Your task to perform on an android device: turn on bluetooth scan Image 0: 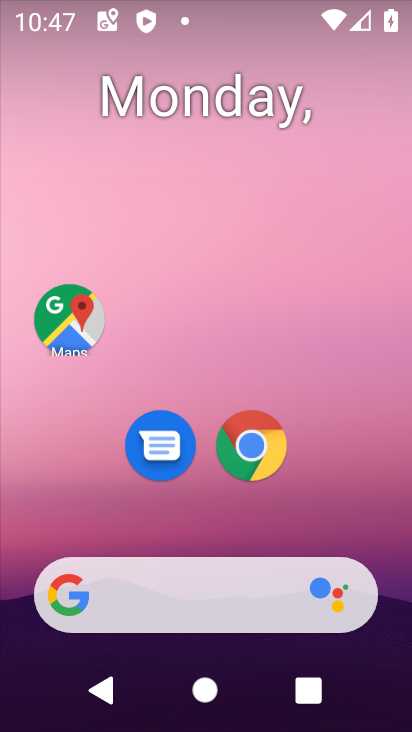
Step 0: drag from (259, 539) to (384, 205)
Your task to perform on an android device: turn on bluetooth scan Image 1: 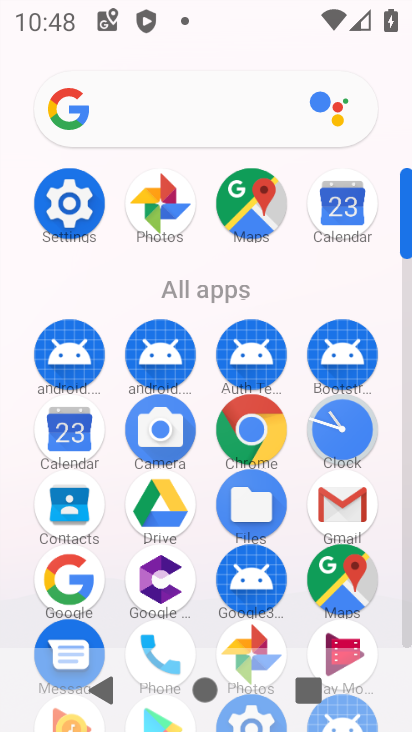
Step 1: click (80, 205)
Your task to perform on an android device: turn on bluetooth scan Image 2: 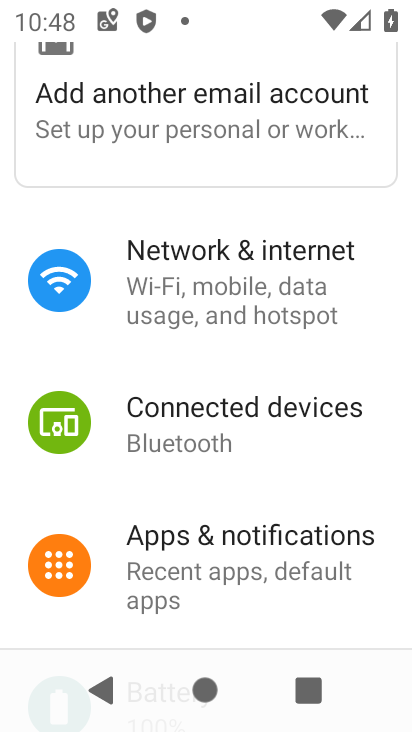
Step 2: drag from (223, 584) to (295, 249)
Your task to perform on an android device: turn on bluetooth scan Image 3: 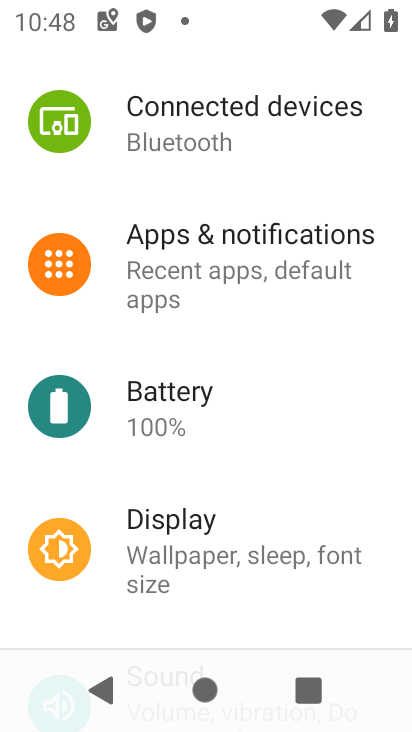
Step 3: drag from (218, 475) to (278, 289)
Your task to perform on an android device: turn on bluetooth scan Image 4: 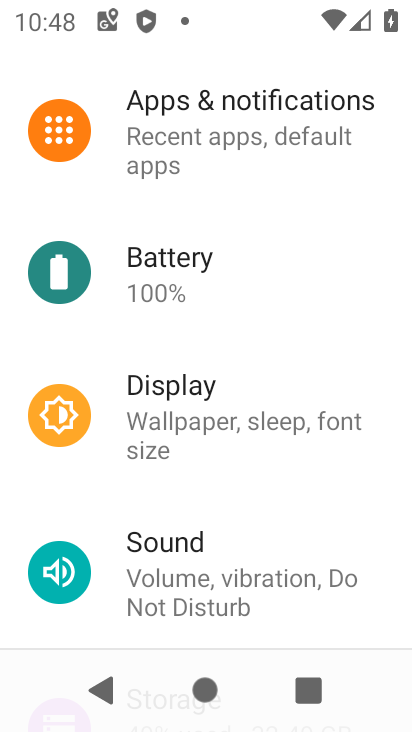
Step 4: drag from (204, 513) to (257, 213)
Your task to perform on an android device: turn on bluetooth scan Image 5: 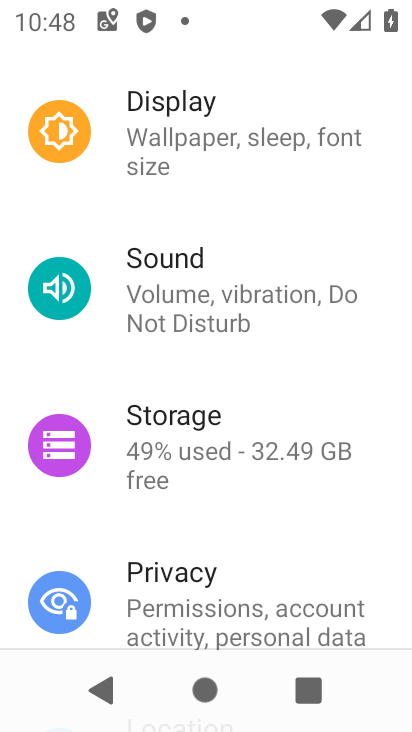
Step 5: drag from (210, 554) to (314, 266)
Your task to perform on an android device: turn on bluetooth scan Image 6: 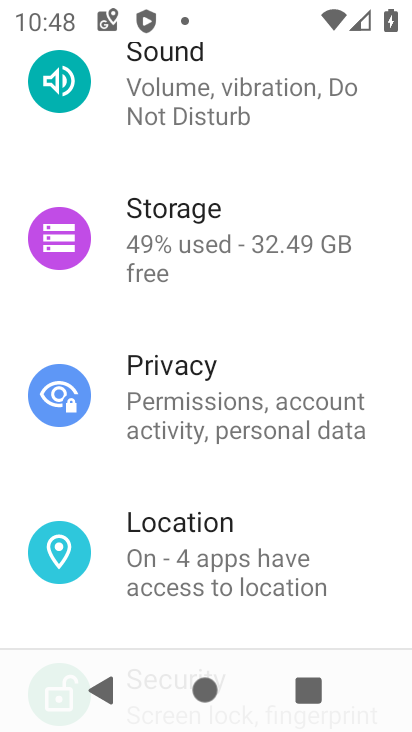
Step 6: click (202, 538)
Your task to perform on an android device: turn on bluetooth scan Image 7: 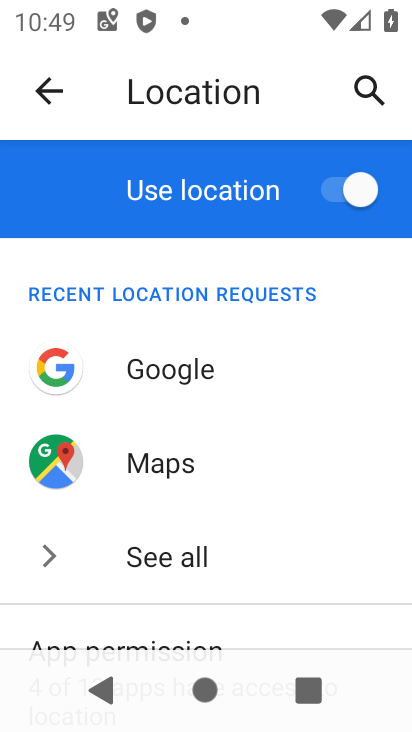
Step 7: drag from (274, 578) to (322, 242)
Your task to perform on an android device: turn on bluetooth scan Image 8: 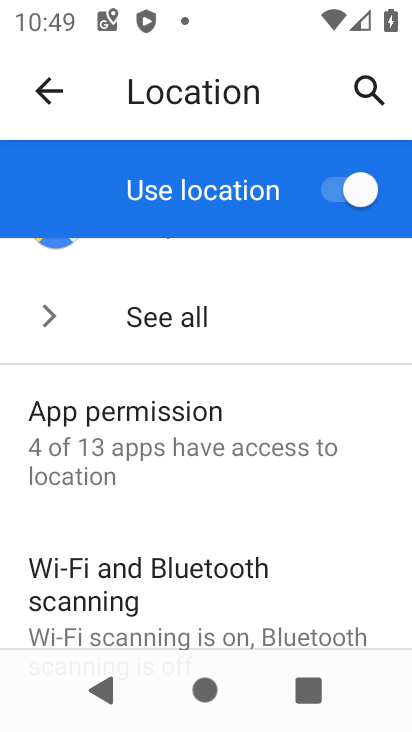
Step 8: click (230, 568)
Your task to perform on an android device: turn on bluetooth scan Image 9: 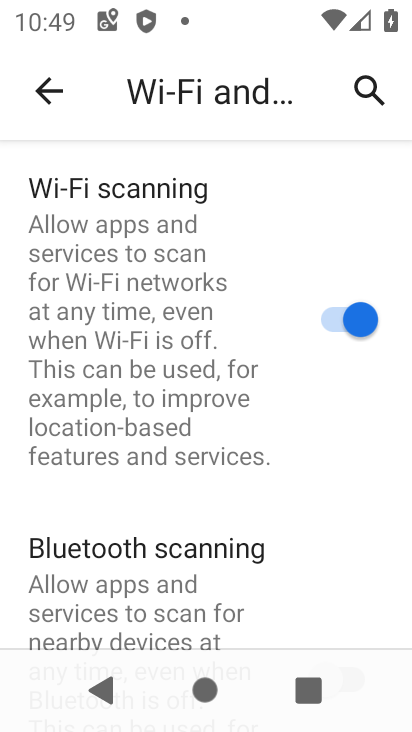
Step 9: drag from (249, 594) to (259, 233)
Your task to perform on an android device: turn on bluetooth scan Image 10: 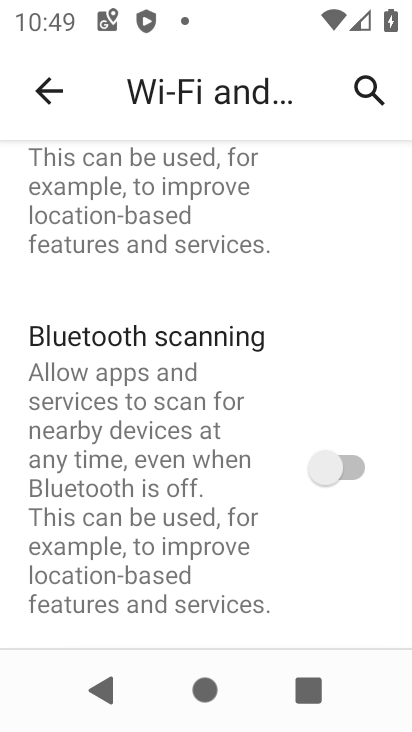
Step 10: click (341, 462)
Your task to perform on an android device: turn on bluetooth scan Image 11: 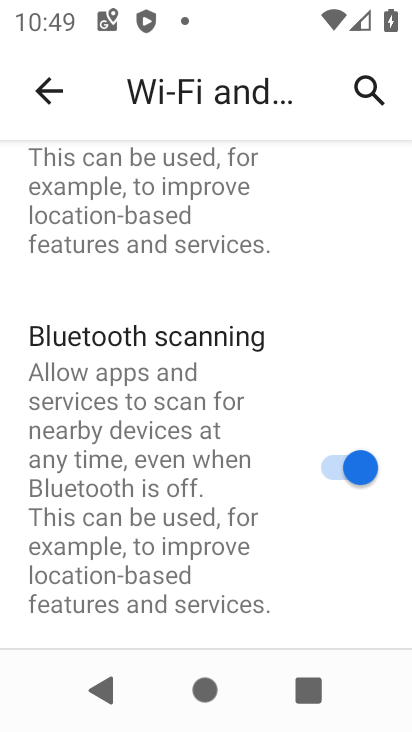
Step 11: task complete